Your task to perform on an android device: Search for seafood restaurants on Google Maps Image 0: 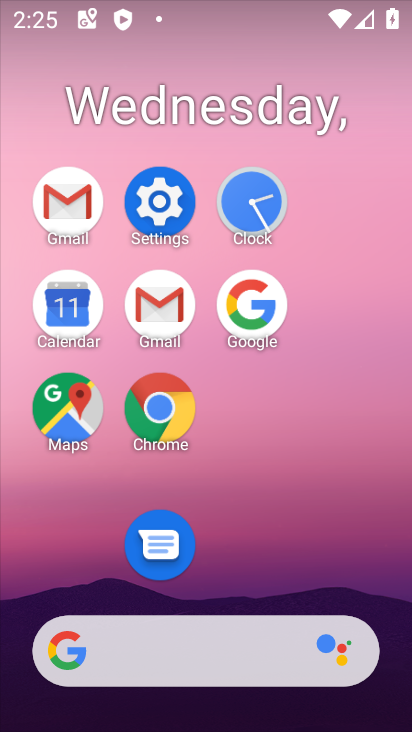
Step 0: click (78, 404)
Your task to perform on an android device: Search for seafood restaurants on Google Maps Image 1: 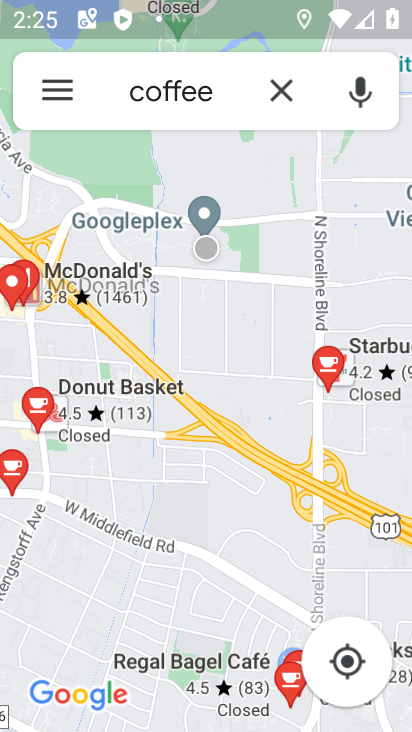
Step 1: click (271, 90)
Your task to perform on an android device: Search for seafood restaurants on Google Maps Image 2: 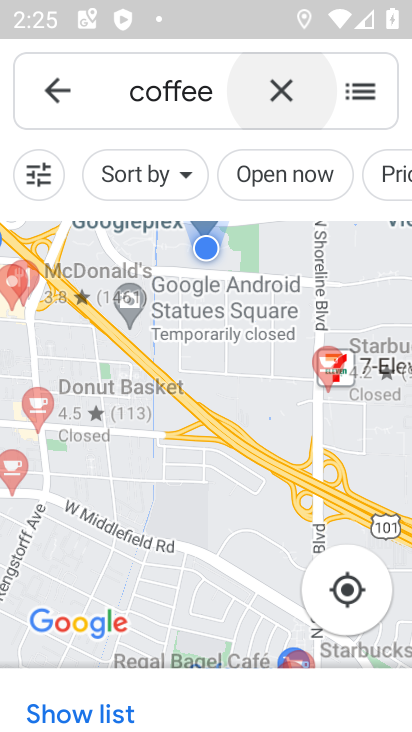
Step 2: click (271, 89)
Your task to perform on an android device: Search for seafood restaurants on Google Maps Image 3: 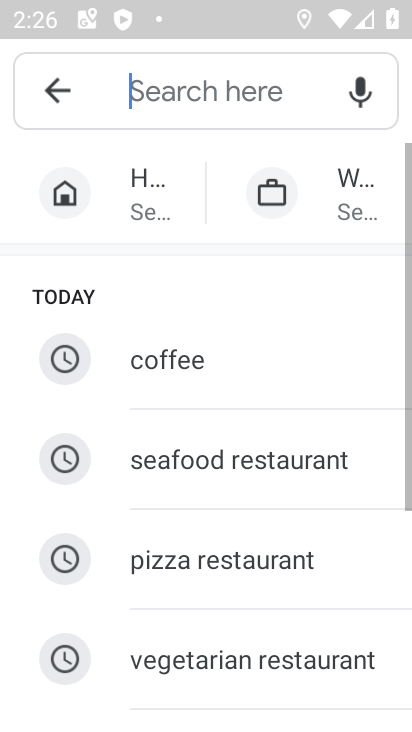
Step 3: click (271, 88)
Your task to perform on an android device: Search for seafood restaurants on Google Maps Image 4: 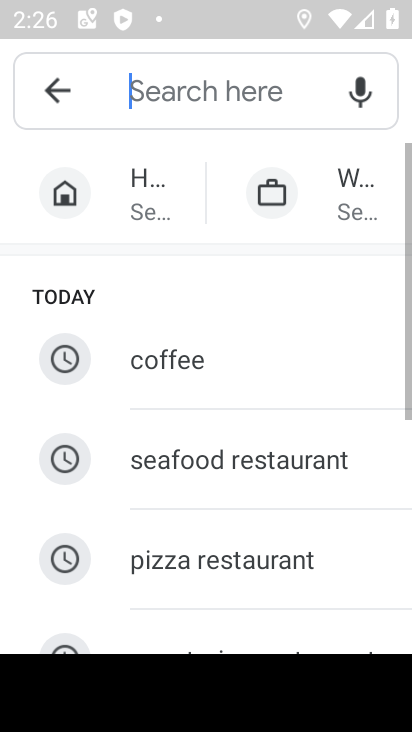
Step 4: click (247, 454)
Your task to perform on an android device: Search for seafood restaurants on Google Maps Image 5: 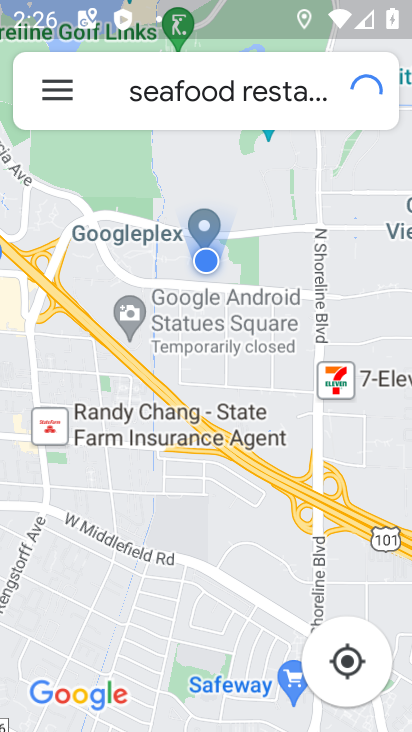
Step 5: task complete